Your task to perform on an android device: Go to internet settings Image 0: 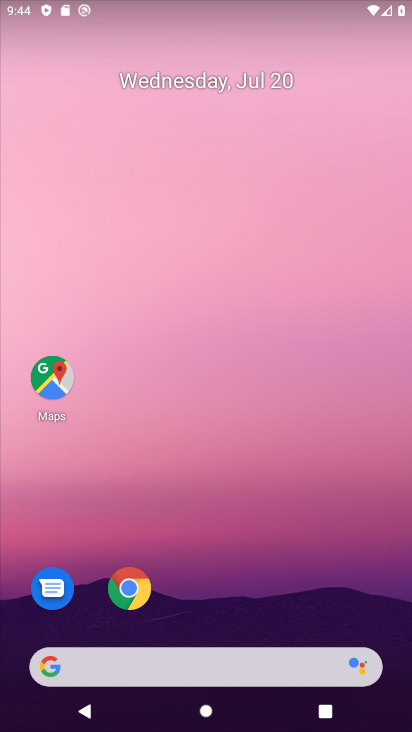
Step 0: drag from (370, 611) to (345, 215)
Your task to perform on an android device: Go to internet settings Image 1: 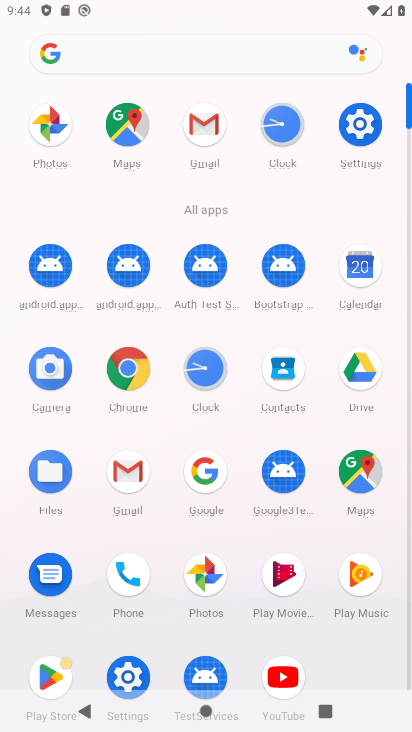
Step 1: click (127, 674)
Your task to perform on an android device: Go to internet settings Image 2: 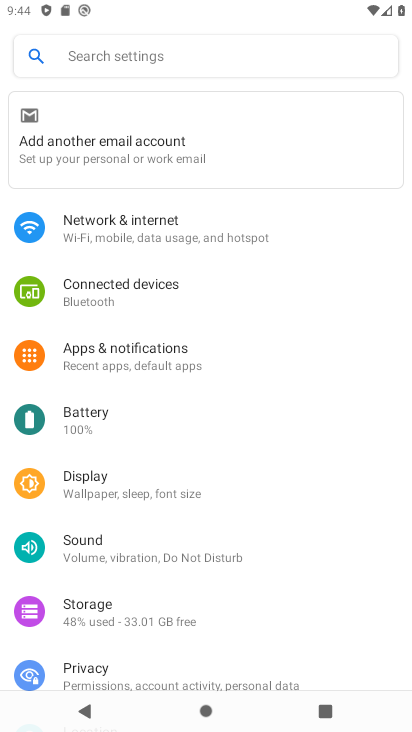
Step 2: click (105, 234)
Your task to perform on an android device: Go to internet settings Image 3: 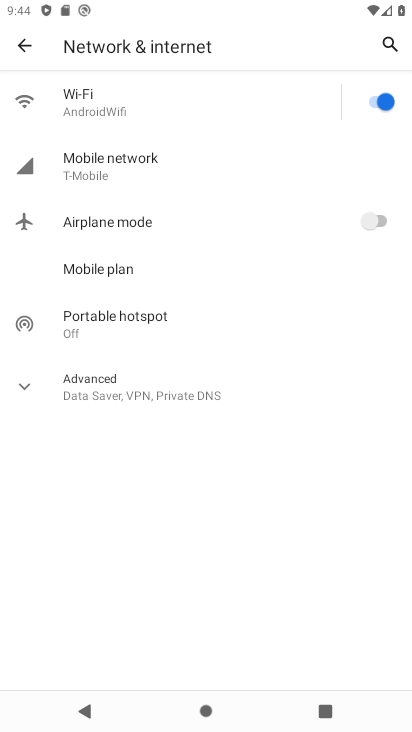
Step 3: click (78, 102)
Your task to perform on an android device: Go to internet settings Image 4: 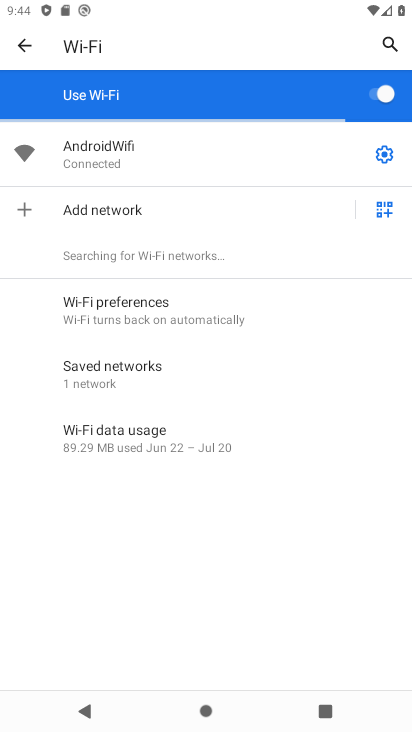
Step 4: task complete